Your task to perform on an android device: manage bookmarks in the chrome app Image 0: 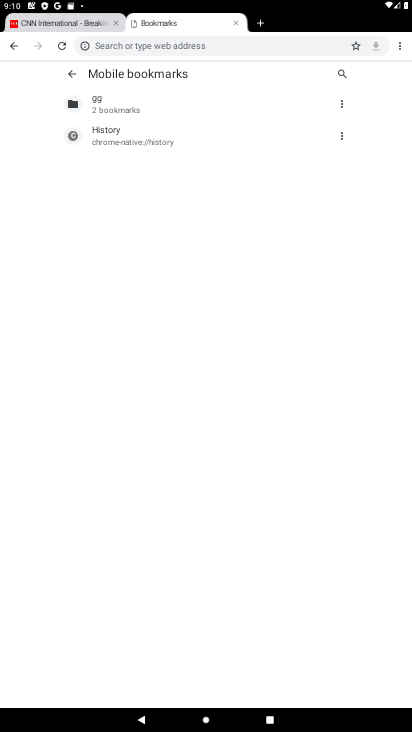
Step 0: press home button
Your task to perform on an android device: manage bookmarks in the chrome app Image 1: 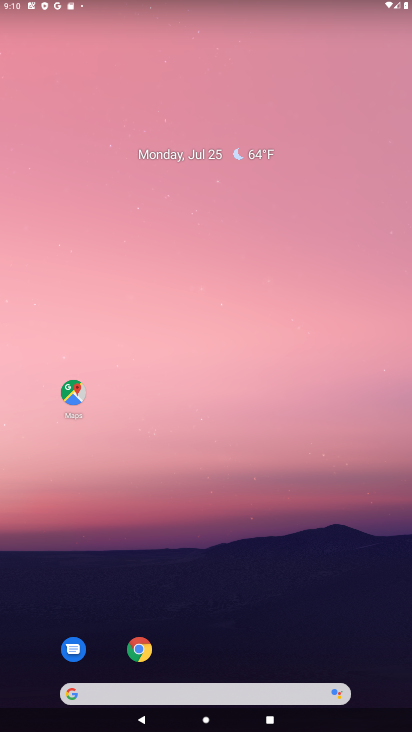
Step 1: click (147, 650)
Your task to perform on an android device: manage bookmarks in the chrome app Image 2: 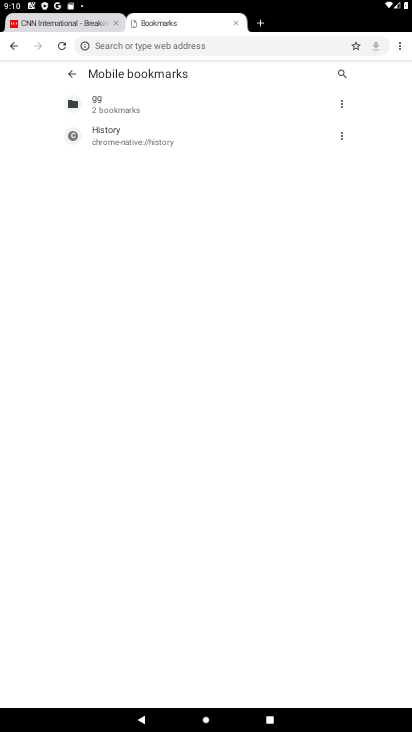
Step 2: click (406, 41)
Your task to perform on an android device: manage bookmarks in the chrome app Image 3: 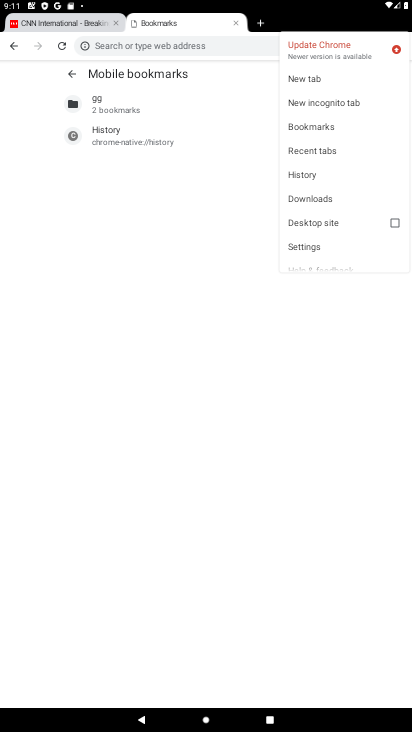
Step 3: click (323, 122)
Your task to perform on an android device: manage bookmarks in the chrome app Image 4: 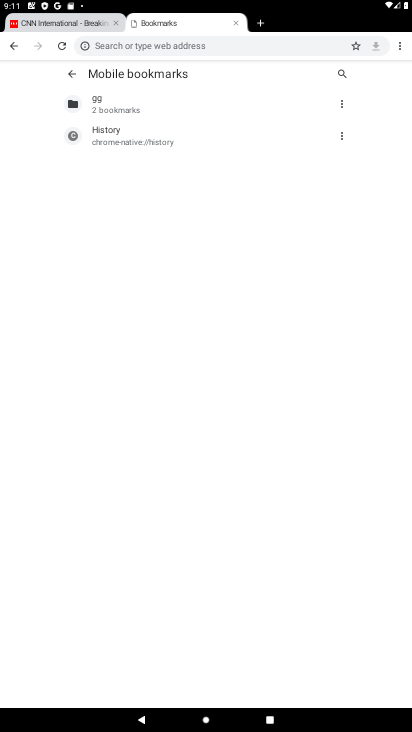
Step 4: click (127, 125)
Your task to perform on an android device: manage bookmarks in the chrome app Image 5: 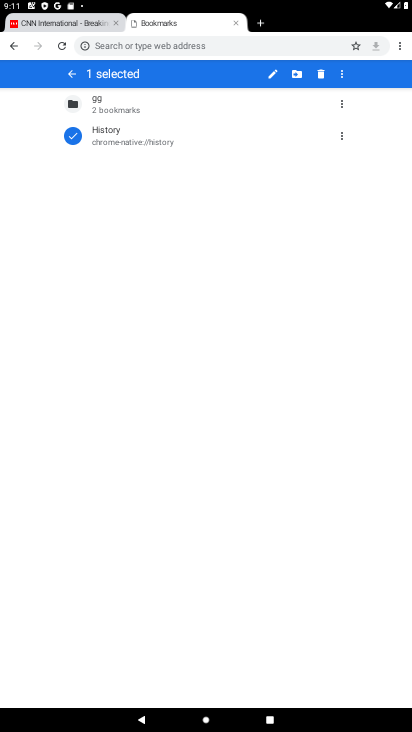
Step 5: click (320, 74)
Your task to perform on an android device: manage bookmarks in the chrome app Image 6: 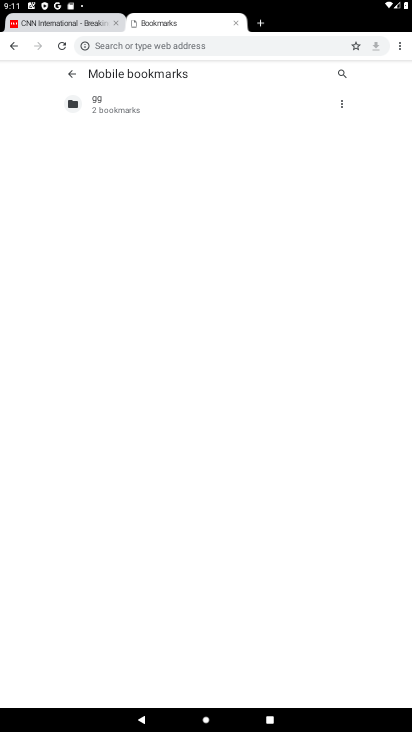
Step 6: task complete